Your task to perform on an android device: turn on javascript in the chrome app Image 0: 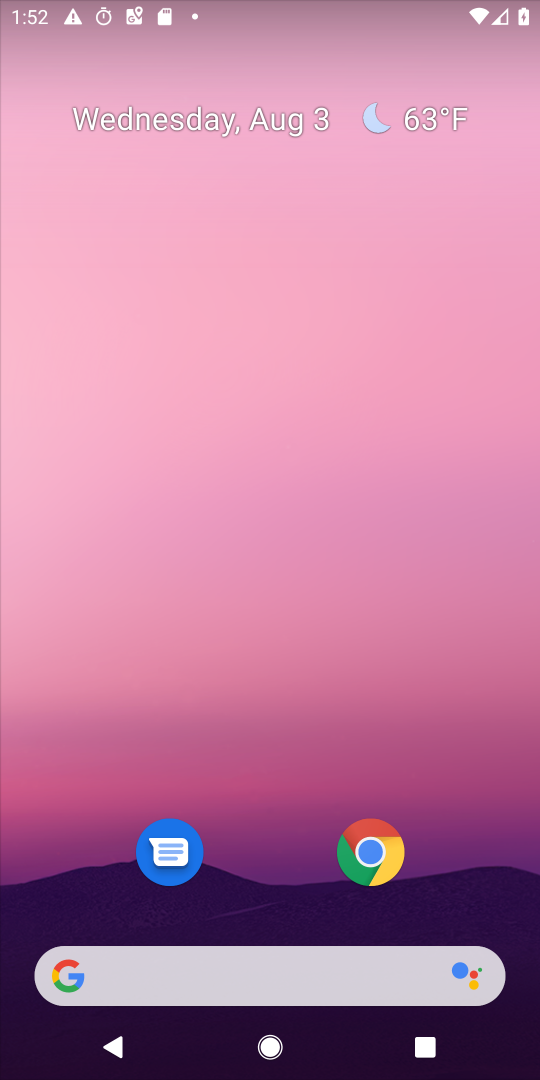
Step 0: drag from (473, 900) to (257, 79)
Your task to perform on an android device: turn on javascript in the chrome app Image 1: 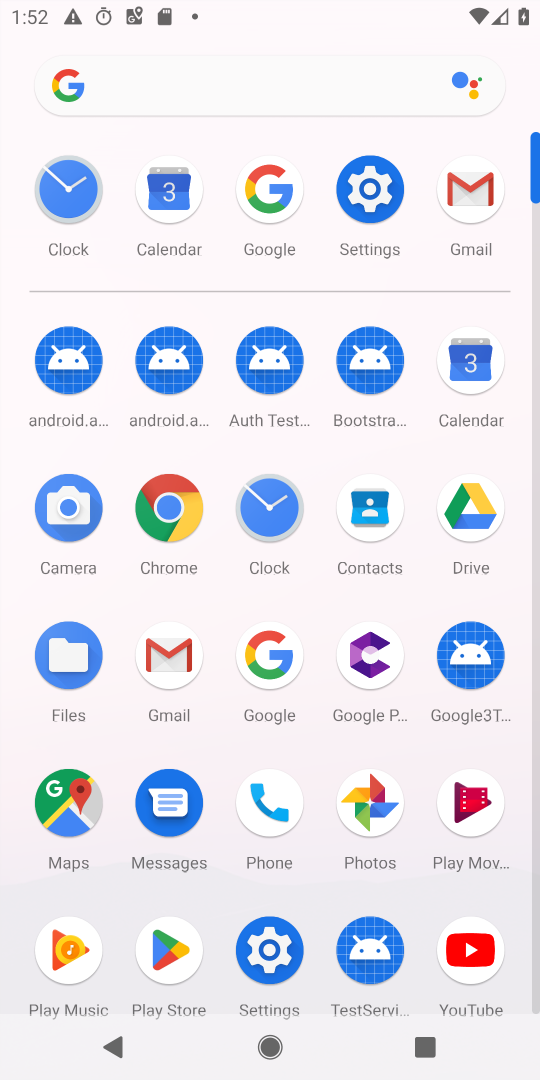
Step 1: click (169, 538)
Your task to perform on an android device: turn on javascript in the chrome app Image 2: 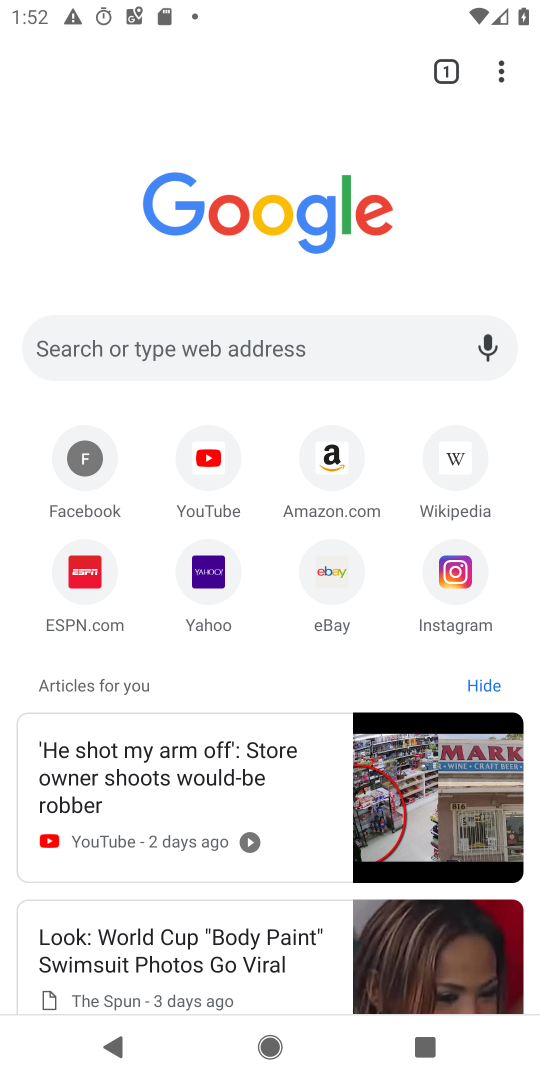
Step 2: click (498, 68)
Your task to perform on an android device: turn on javascript in the chrome app Image 3: 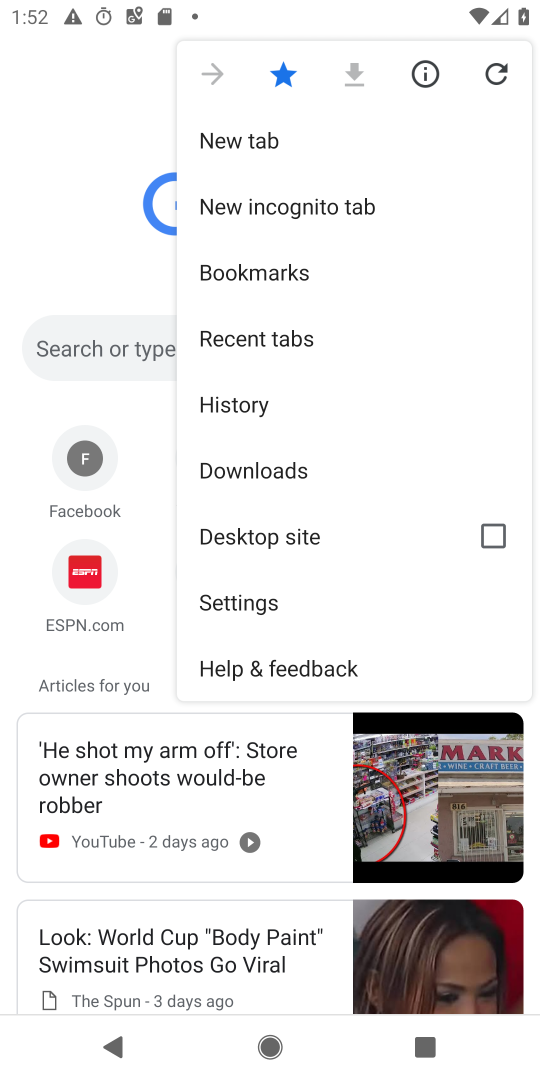
Step 3: click (248, 605)
Your task to perform on an android device: turn on javascript in the chrome app Image 4: 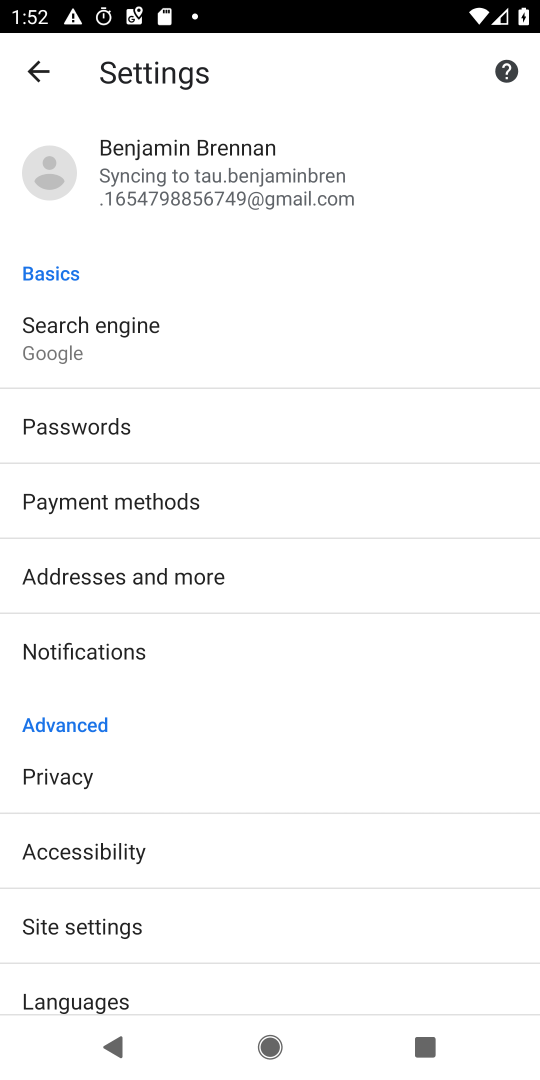
Step 4: click (90, 919)
Your task to perform on an android device: turn on javascript in the chrome app Image 5: 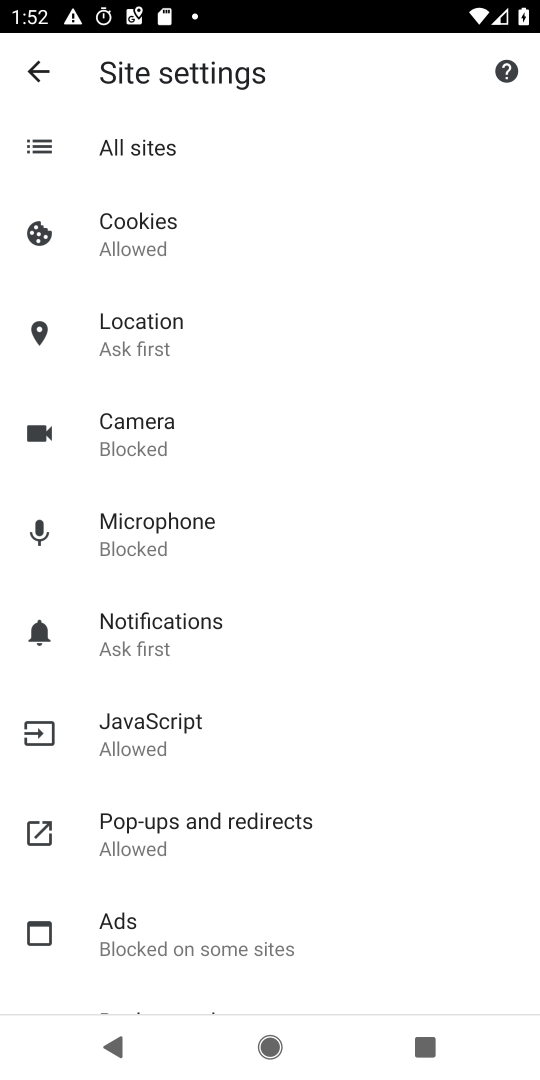
Step 5: click (132, 731)
Your task to perform on an android device: turn on javascript in the chrome app Image 6: 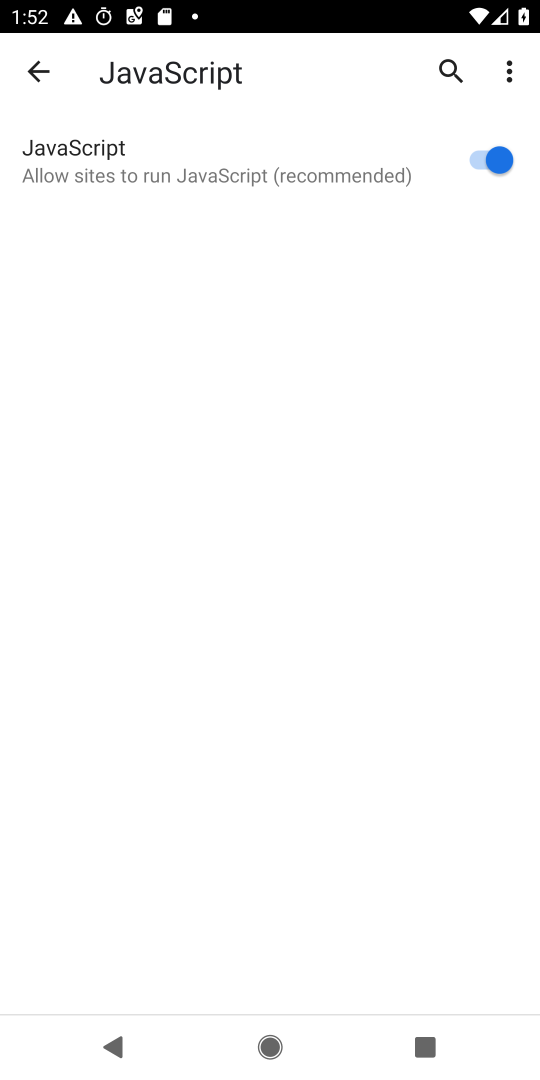
Step 6: task complete